Your task to perform on an android device: stop showing notifications on the lock screen Image 0: 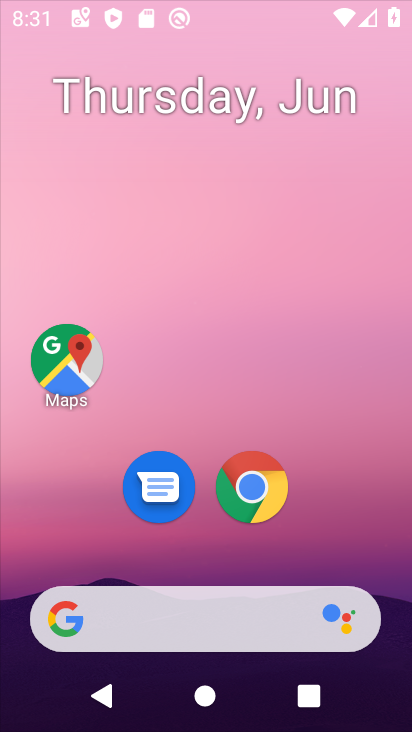
Step 0: drag from (220, 606) to (292, 143)
Your task to perform on an android device: stop showing notifications on the lock screen Image 1: 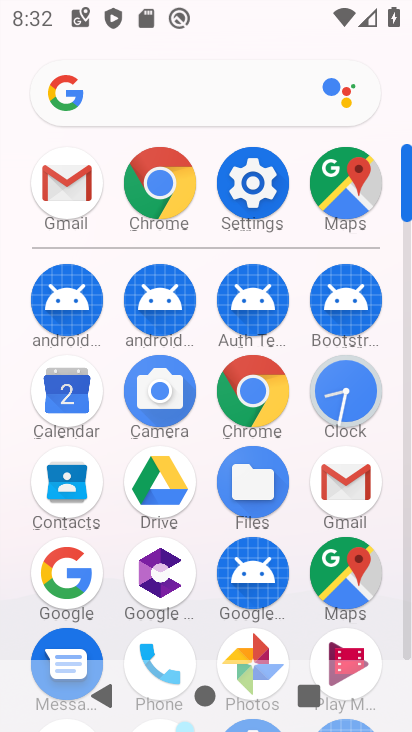
Step 1: click (351, 402)
Your task to perform on an android device: stop showing notifications on the lock screen Image 2: 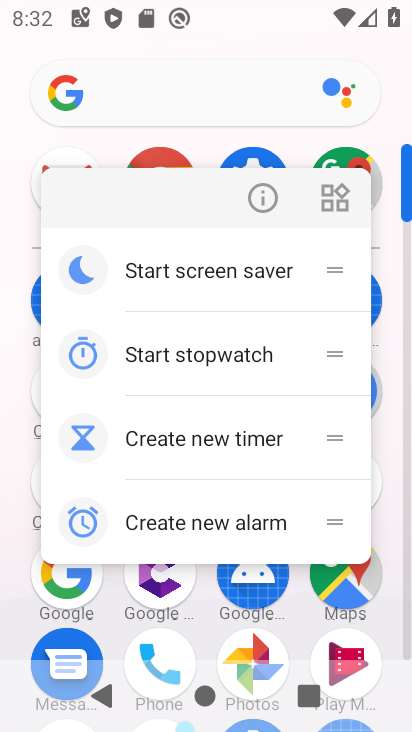
Step 2: click (239, 193)
Your task to perform on an android device: stop showing notifications on the lock screen Image 3: 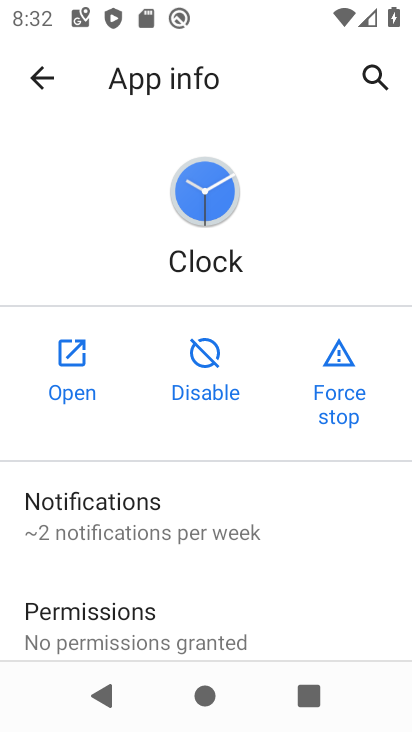
Step 3: click (57, 379)
Your task to perform on an android device: stop showing notifications on the lock screen Image 4: 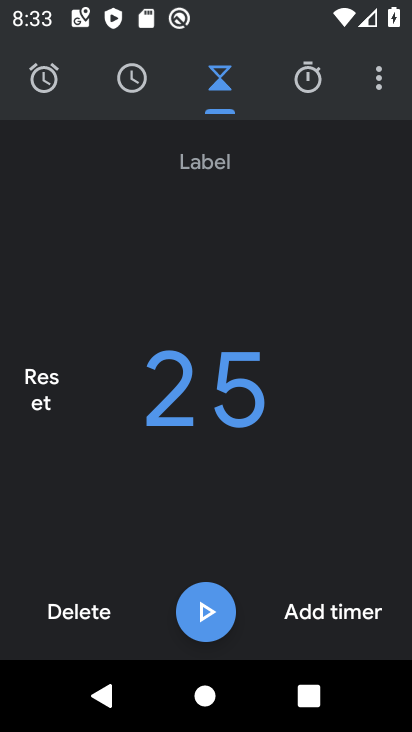
Step 4: click (314, 80)
Your task to perform on an android device: stop showing notifications on the lock screen Image 5: 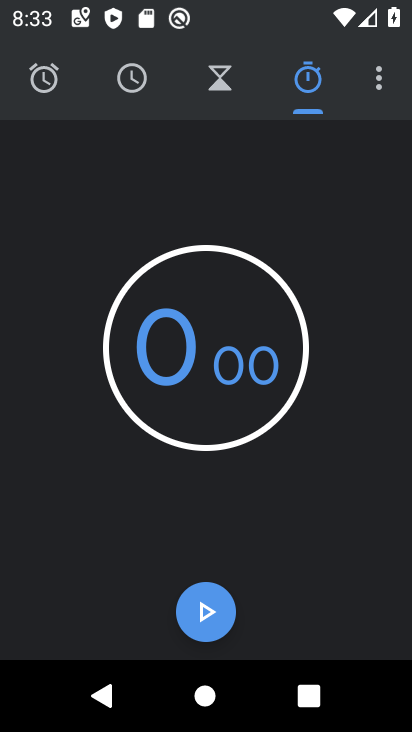
Step 5: drag from (270, 624) to (246, 509)
Your task to perform on an android device: stop showing notifications on the lock screen Image 6: 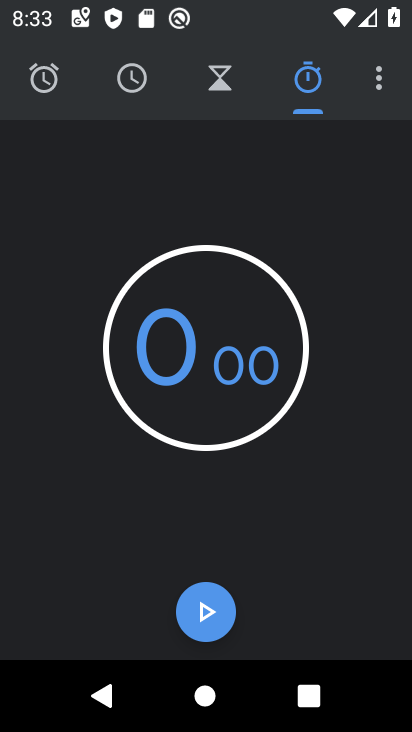
Step 6: click (383, 86)
Your task to perform on an android device: stop showing notifications on the lock screen Image 7: 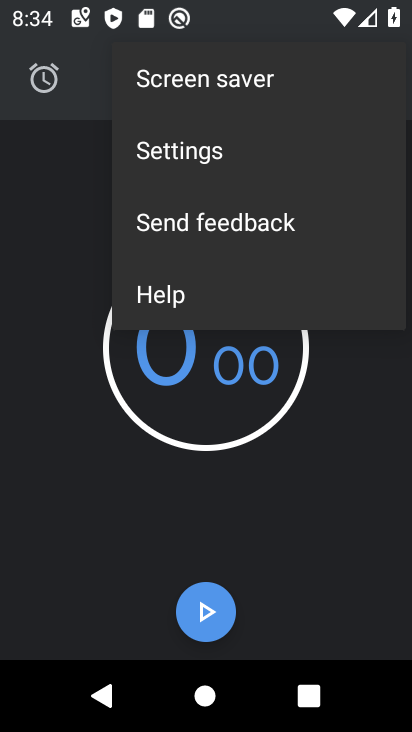
Step 7: press home button
Your task to perform on an android device: stop showing notifications on the lock screen Image 8: 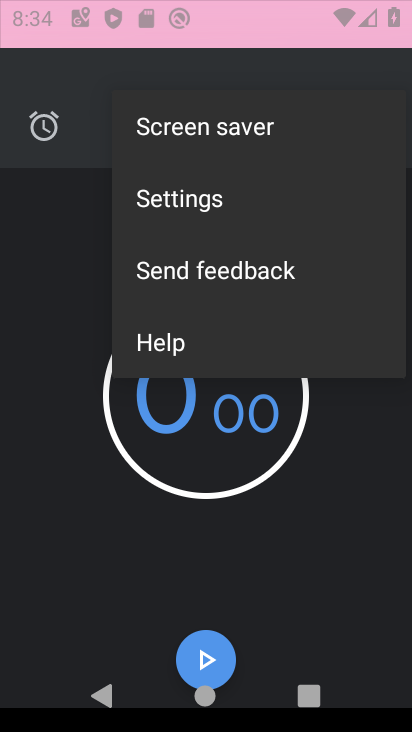
Step 8: drag from (188, 559) to (202, 80)
Your task to perform on an android device: stop showing notifications on the lock screen Image 9: 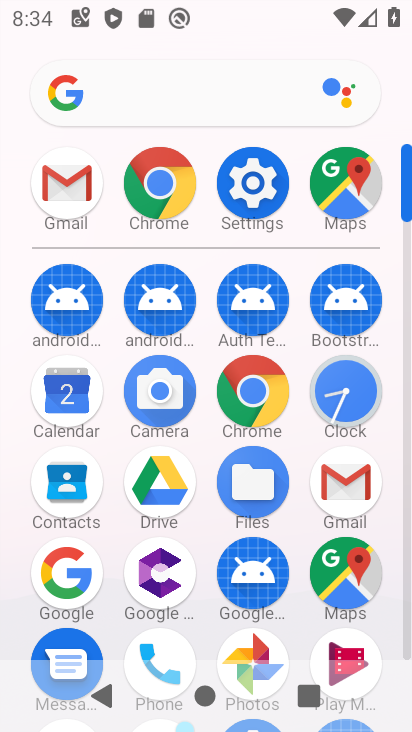
Step 9: click (242, 182)
Your task to perform on an android device: stop showing notifications on the lock screen Image 10: 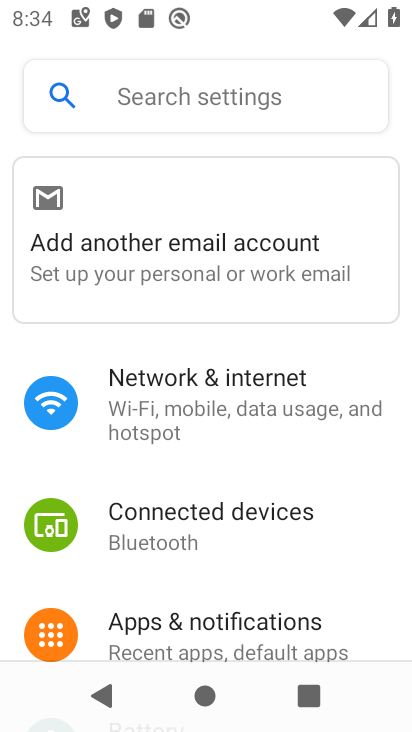
Step 10: drag from (223, 544) to (215, 184)
Your task to perform on an android device: stop showing notifications on the lock screen Image 11: 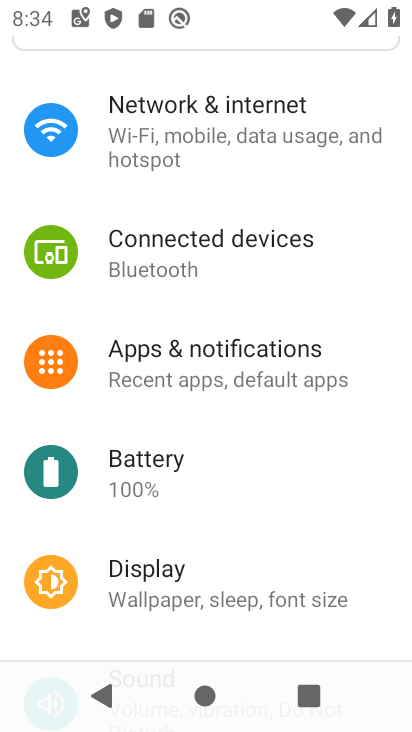
Step 11: drag from (225, 532) to (239, 262)
Your task to perform on an android device: stop showing notifications on the lock screen Image 12: 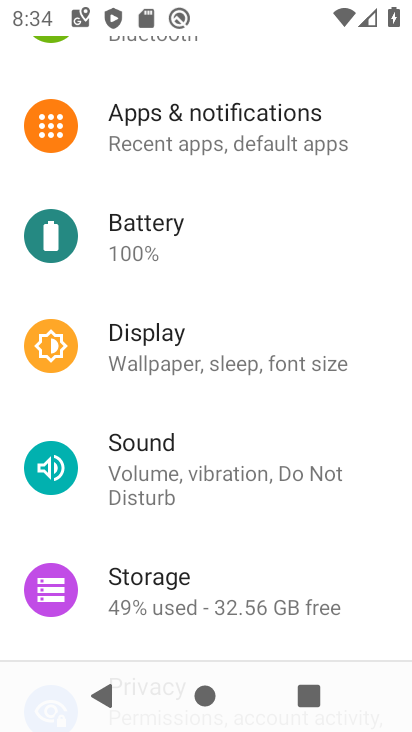
Step 12: drag from (275, 530) to (295, 140)
Your task to perform on an android device: stop showing notifications on the lock screen Image 13: 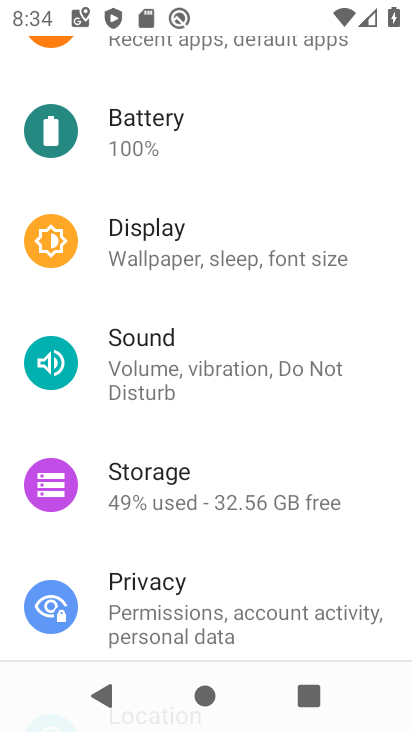
Step 13: drag from (218, 144) to (304, 539)
Your task to perform on an android device: stop showing notifications on the lock screen Image 14: 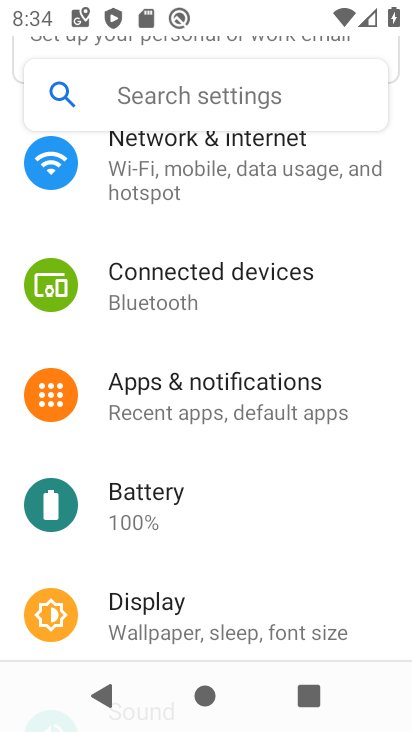
Step 14: drag from (176, 264) to (291, 728)
Your task to perform on an android device: stop showing notifications on the lock screen Image 15: 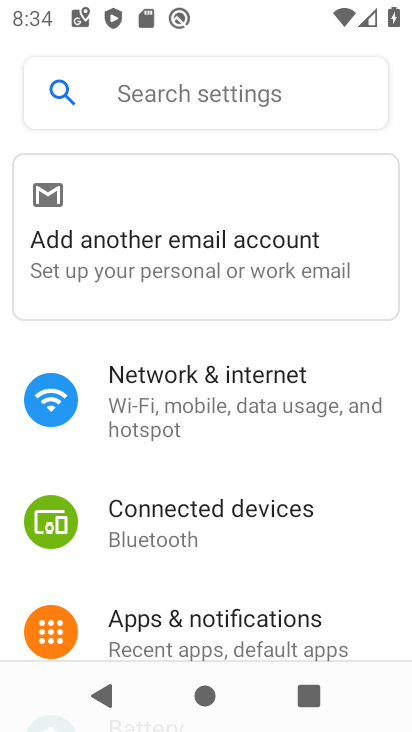
Step 15: click (202, 618)
Your task to perform on an android device: stop showing notifications on the lock screen Image 16: 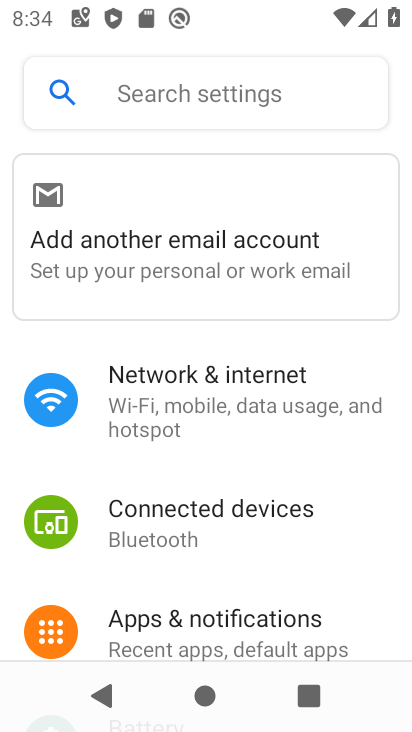
Step 16: drag from (192, 602) to (287, 222)
Your task to perform on an android device: stop showing notifications on the lock screen Image 17: 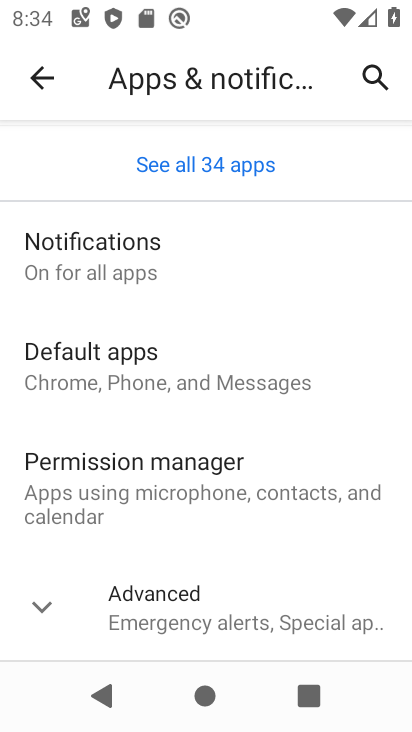
Step 17: click (178, 263)
Your task to perform on an android device: stop showing notifications on the lock screen Image 18: 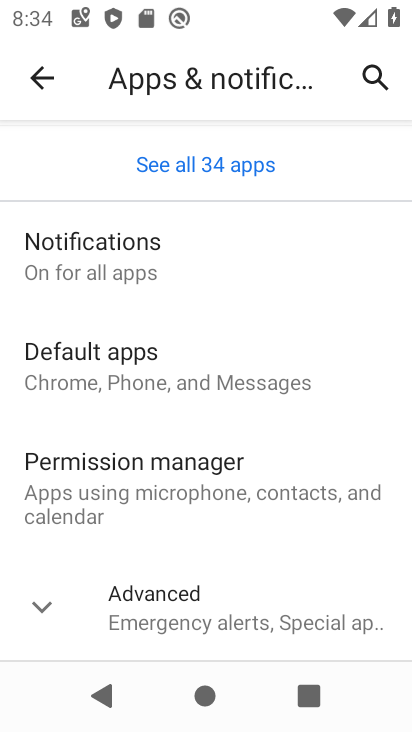
Step 18: click (178, 263)
Your task to perform on an android device: stop showing notifications on the lock screen Image 19: 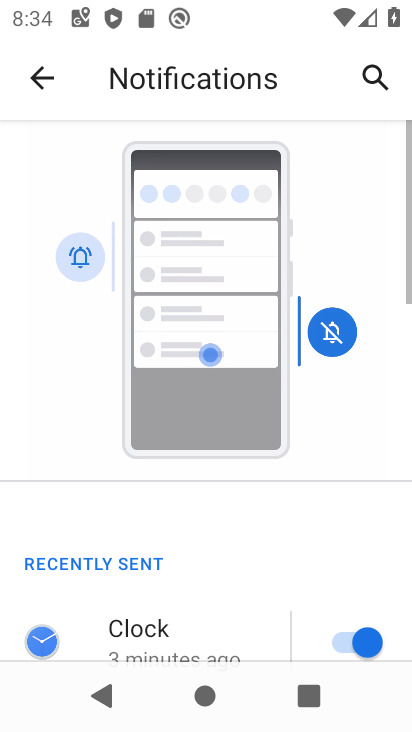
Step 19: drag from (218, 534) to (229, 144)
Your task to perform on an android device: stop showing notifications on the lock screen Image 20: 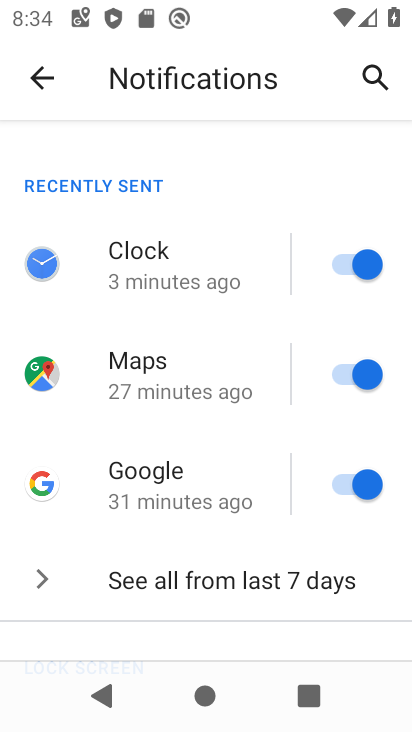
Step 20: drag from (194, 592) to (280, 90)
Your task to perform on an android device: stop showing notifications on the lock screen Image 21: 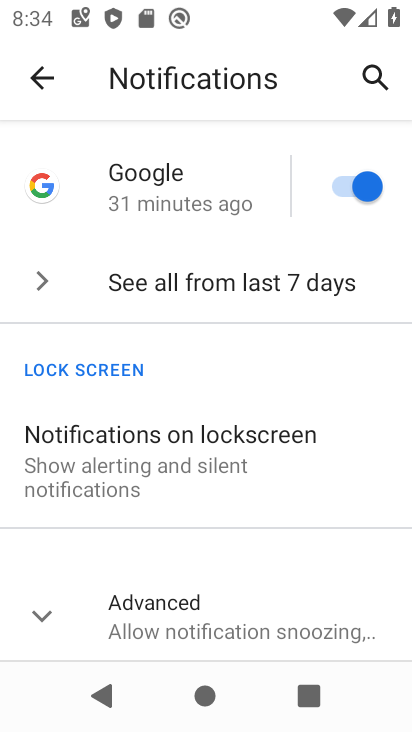
Step 21: click (198, 474)
Your task to perform on an android device: stop showing notifications on the lock screen Image 22: 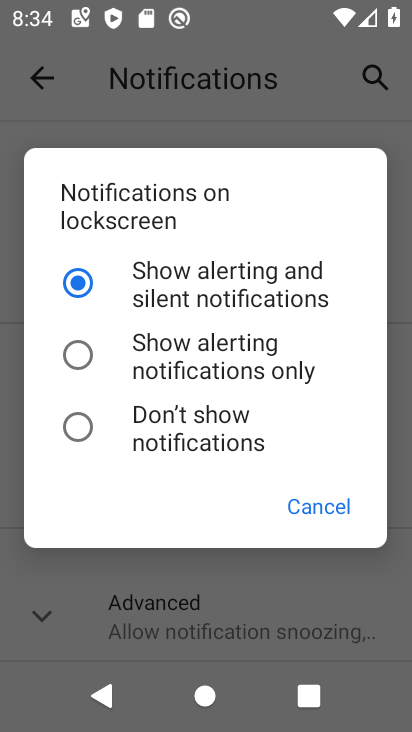
Step 22: click (143, 450)
Your task to perform on an android device: stop showing notifications on the lock screen Image 23: 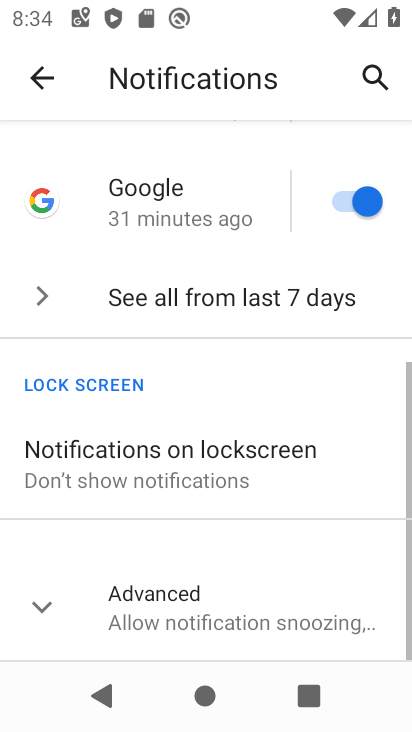
Step 23: task complete